Your task to perform on an android device: Search for "jbl charge 4" on newegg.com, select the first entry, add it to the cart, then select checkout. Image 0: 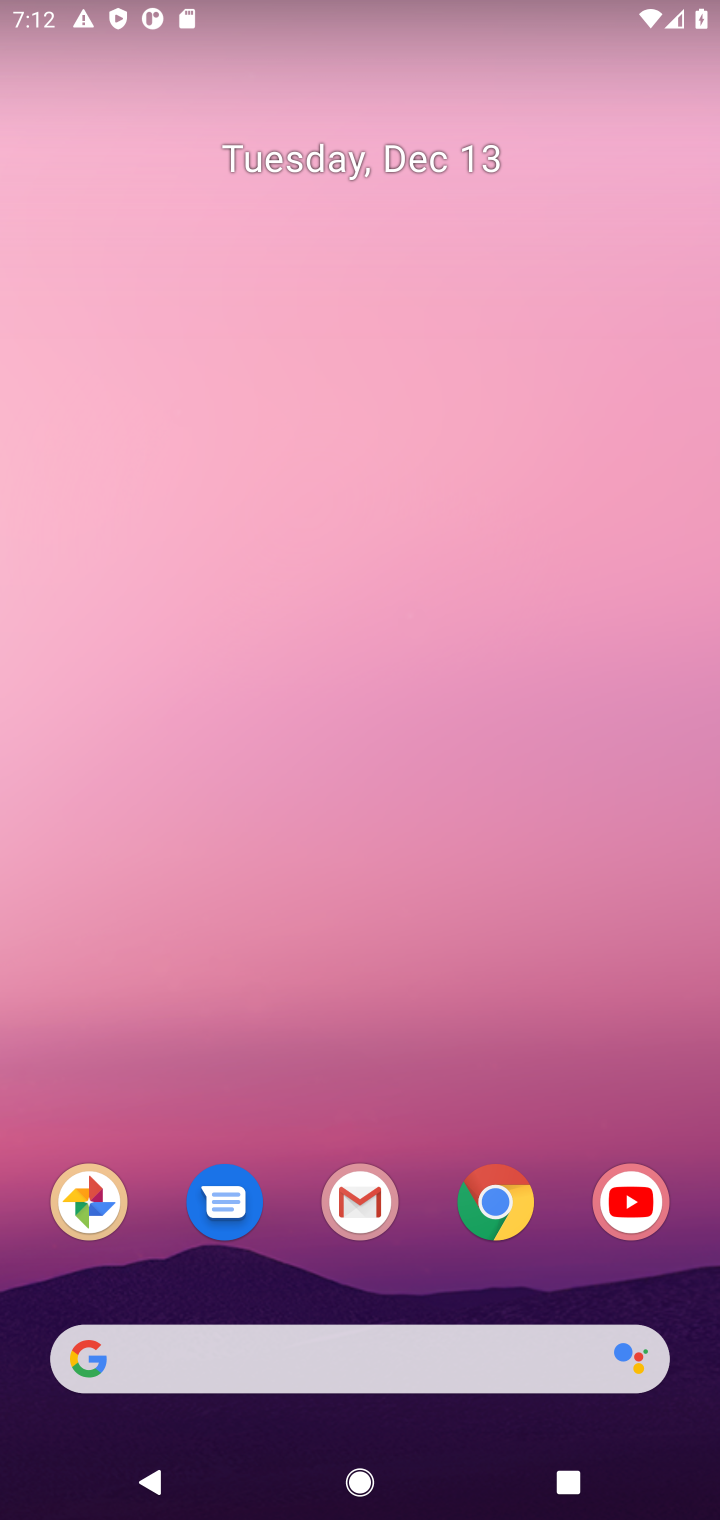
Step 0: click (499, 1213)
Your task to perform on an android device: Search for "jbl charge 4" on newegg.com, select the first entry, add it to the cart, then select checkout. Image 1: 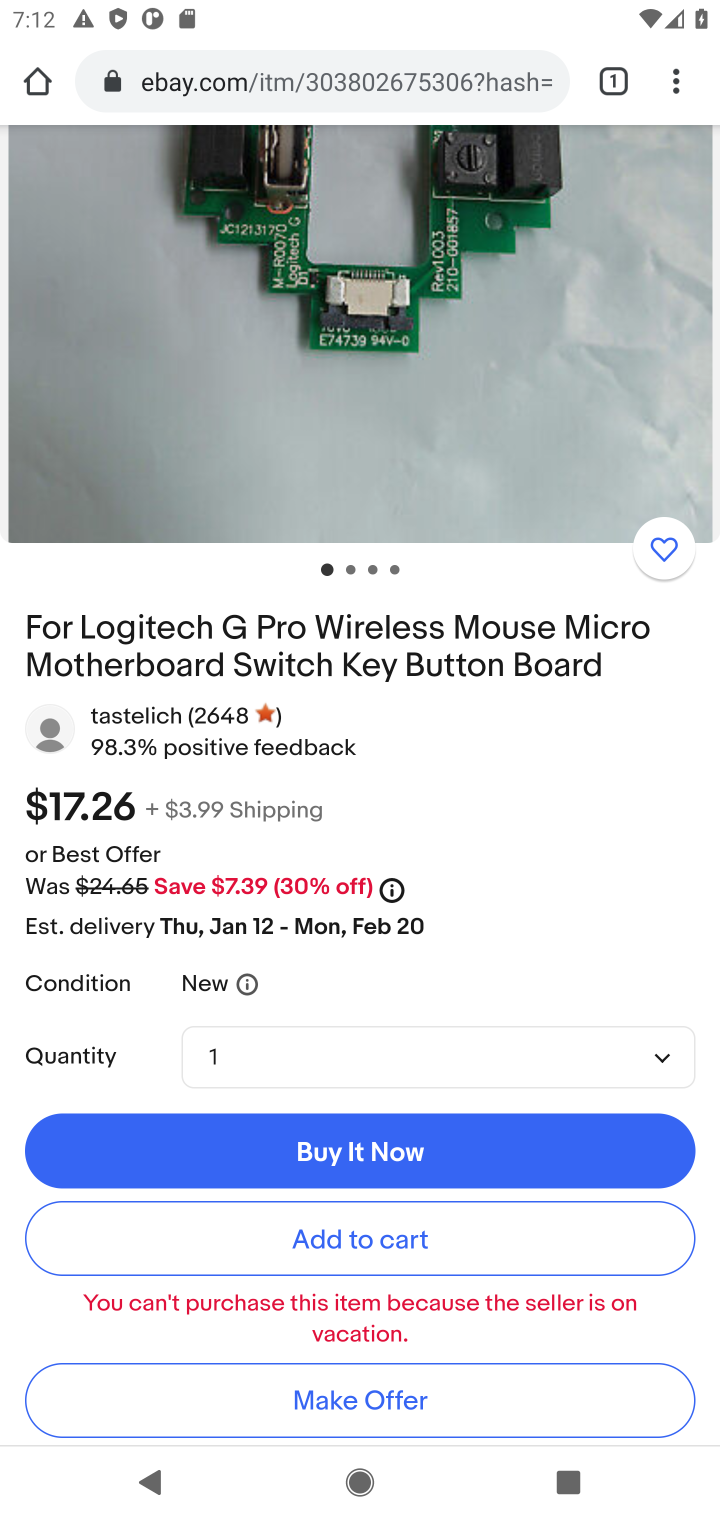
Step 1: click (237, 92)
Your task to perform on an android device: Search for "jbl charge 4" on newegg.com, select the first entry, add it to the cart, then select checkout. Image 2: 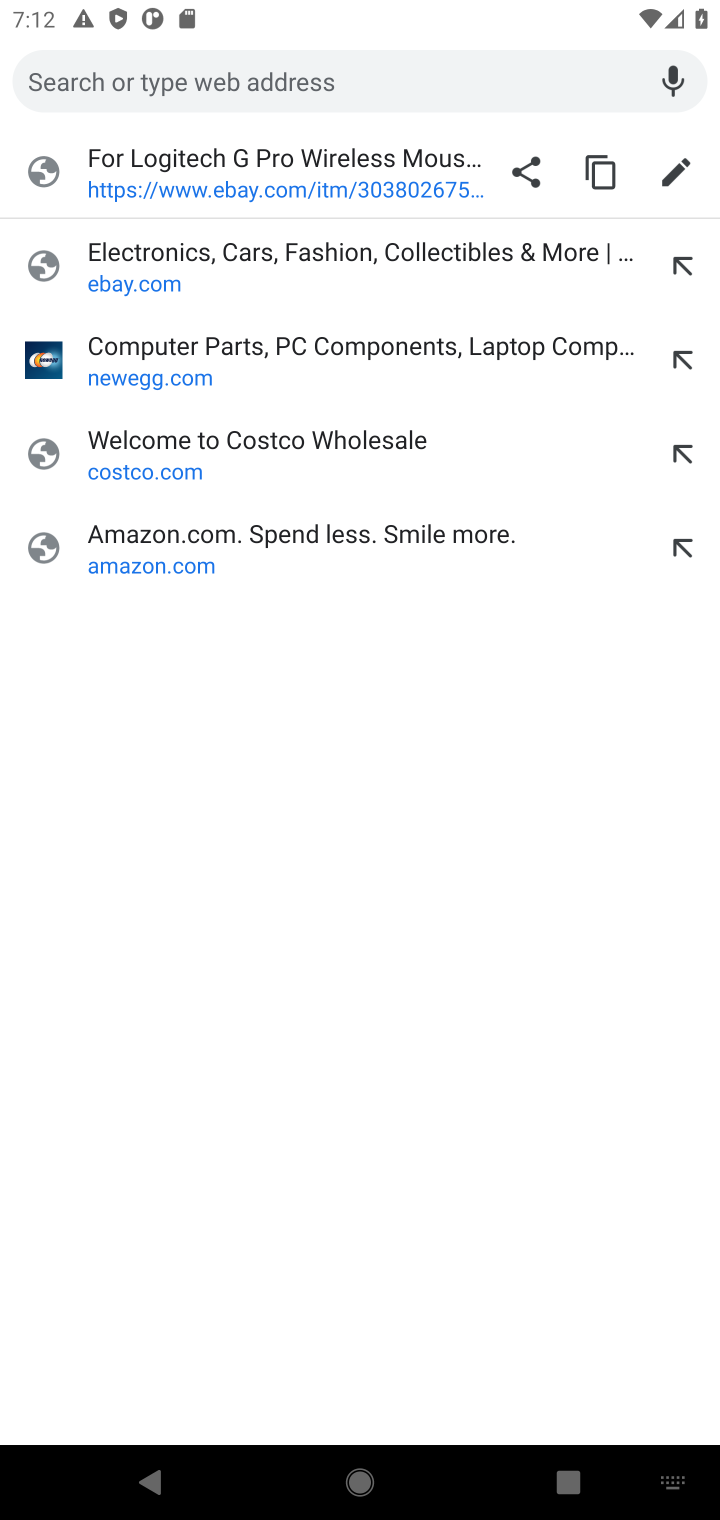
Step 2: click (119, 379)
Your task to perform on an android device: Search for "jbl charge 4" on newegg.com, select the first entry, add it to the cart, then select checkout. Image 3: 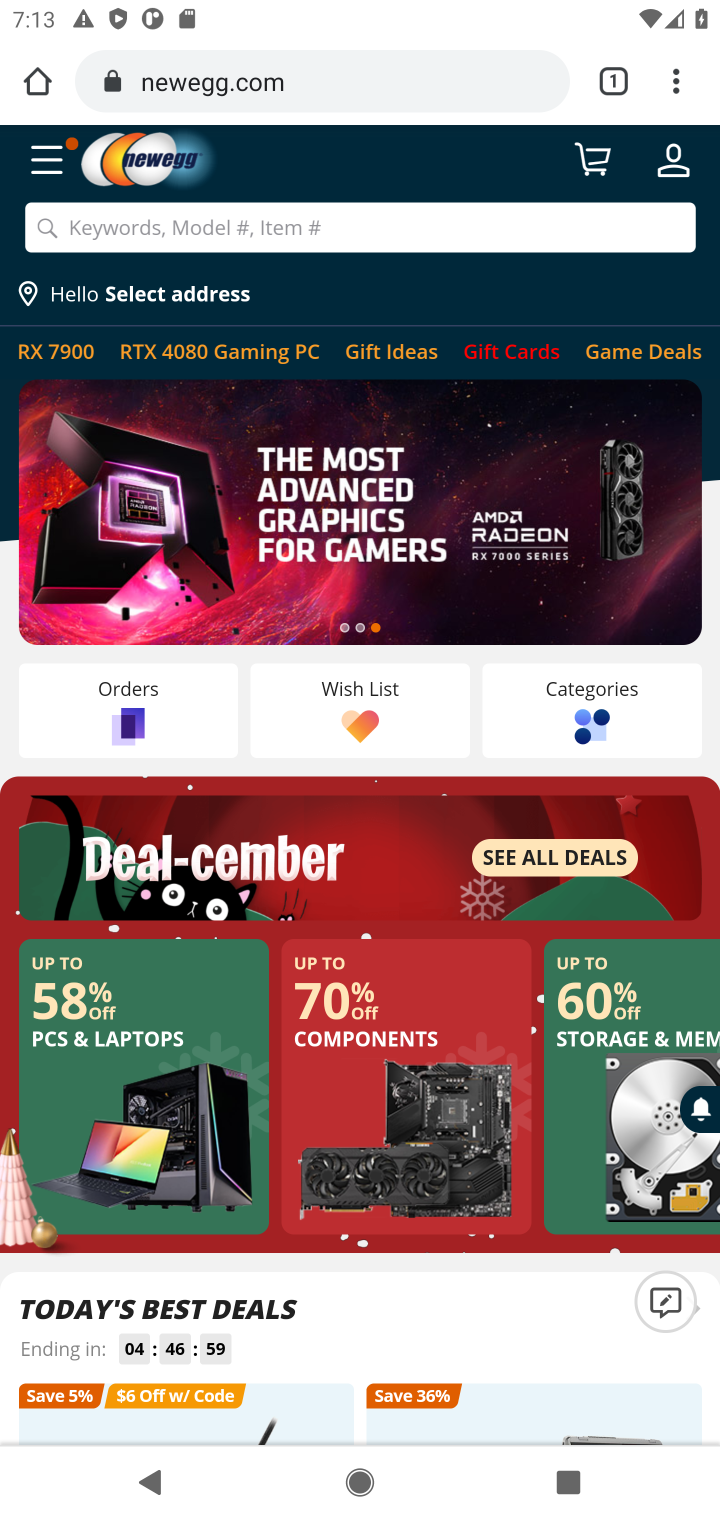
Step 3: click (183, 234)
Your task to perform on an android device: Search for "jbl charge 4" on newegg.com, select the first entry, add it to the cart, then select checkout. Image 4: 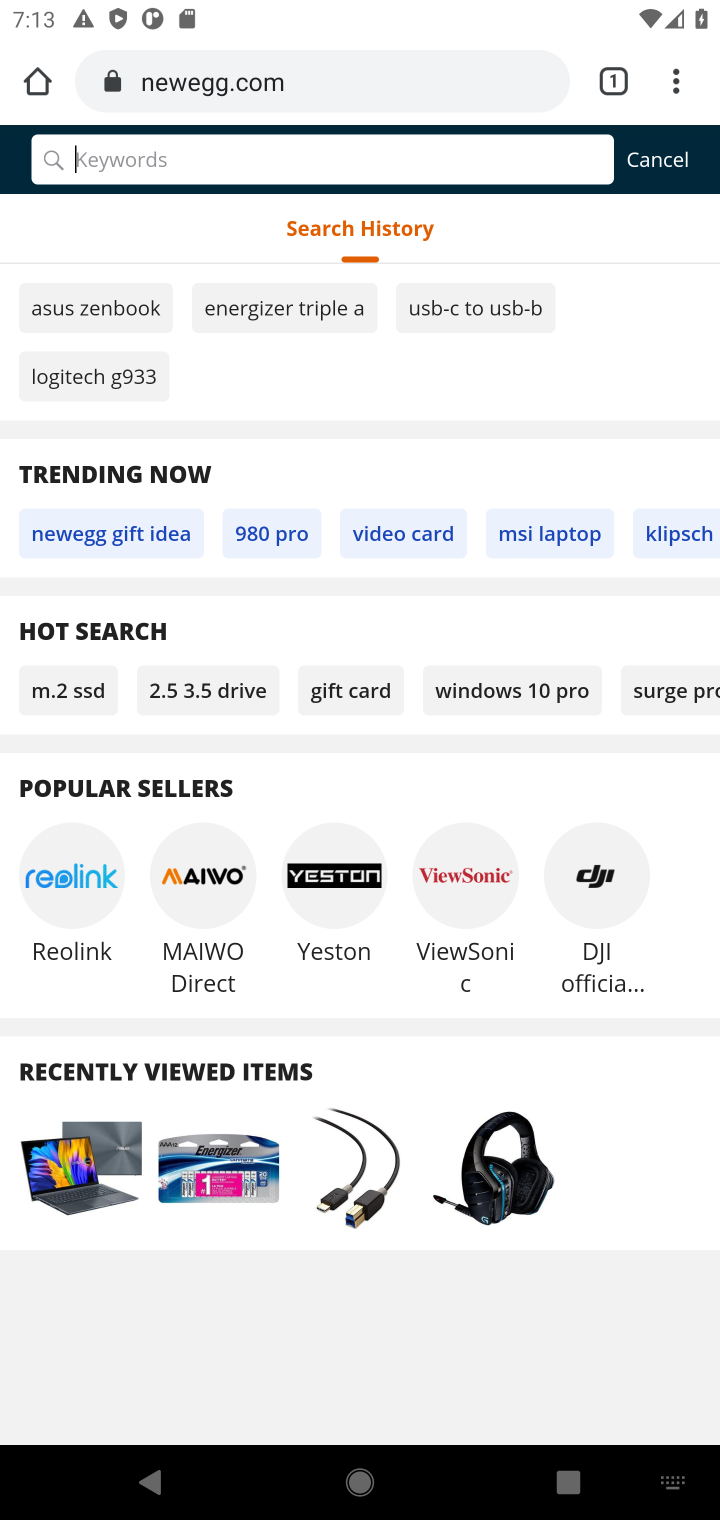
Step 4: click (183, 234)
Your task to perform on an android device: Search for "jbl charge 4" on newegg.com, select the first entry, add it to the cart, then select checkout. Image 5: 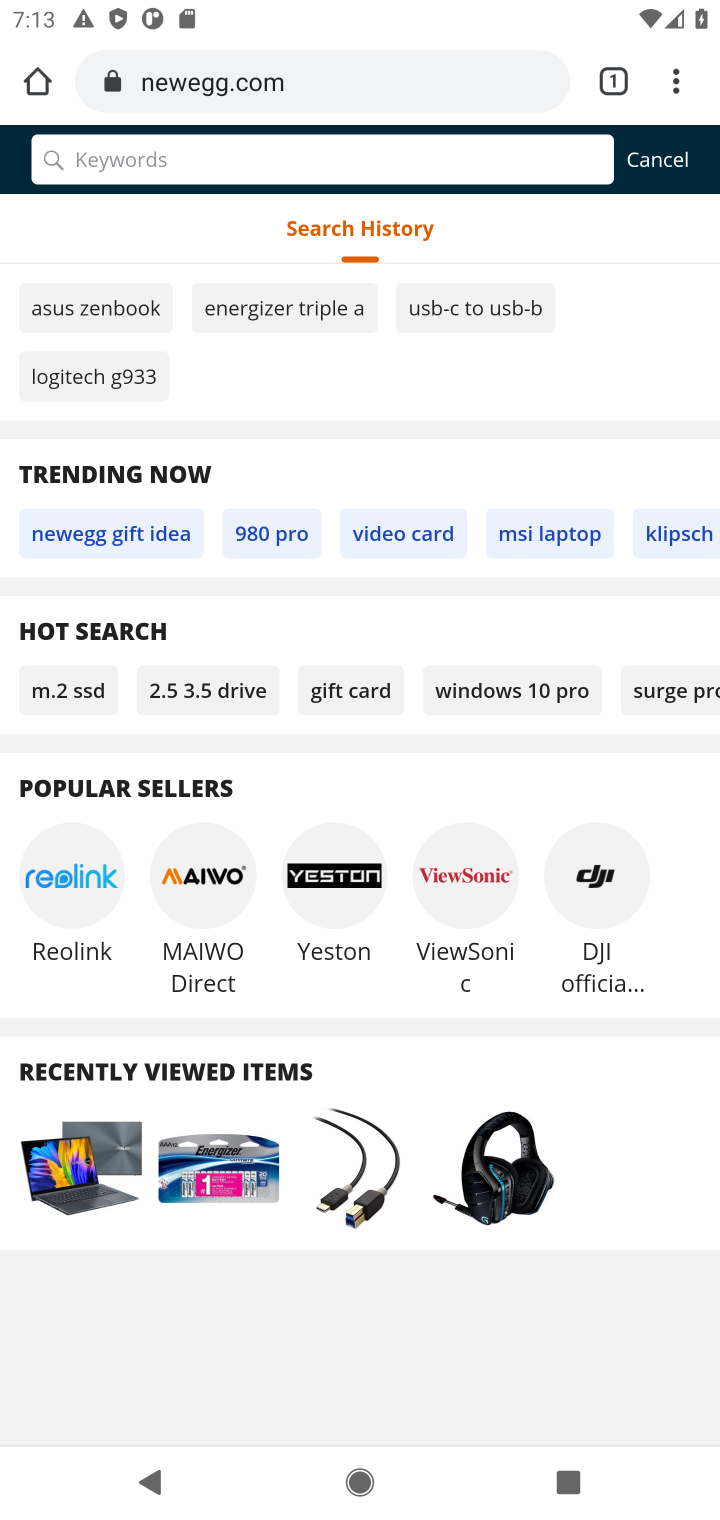
Step 5: click (131, 151)
Your task to perform on an android device: Search for "jbl charge 4" on newegg.com, select the first entry, add it to the cart, then select checkout. Image 6: 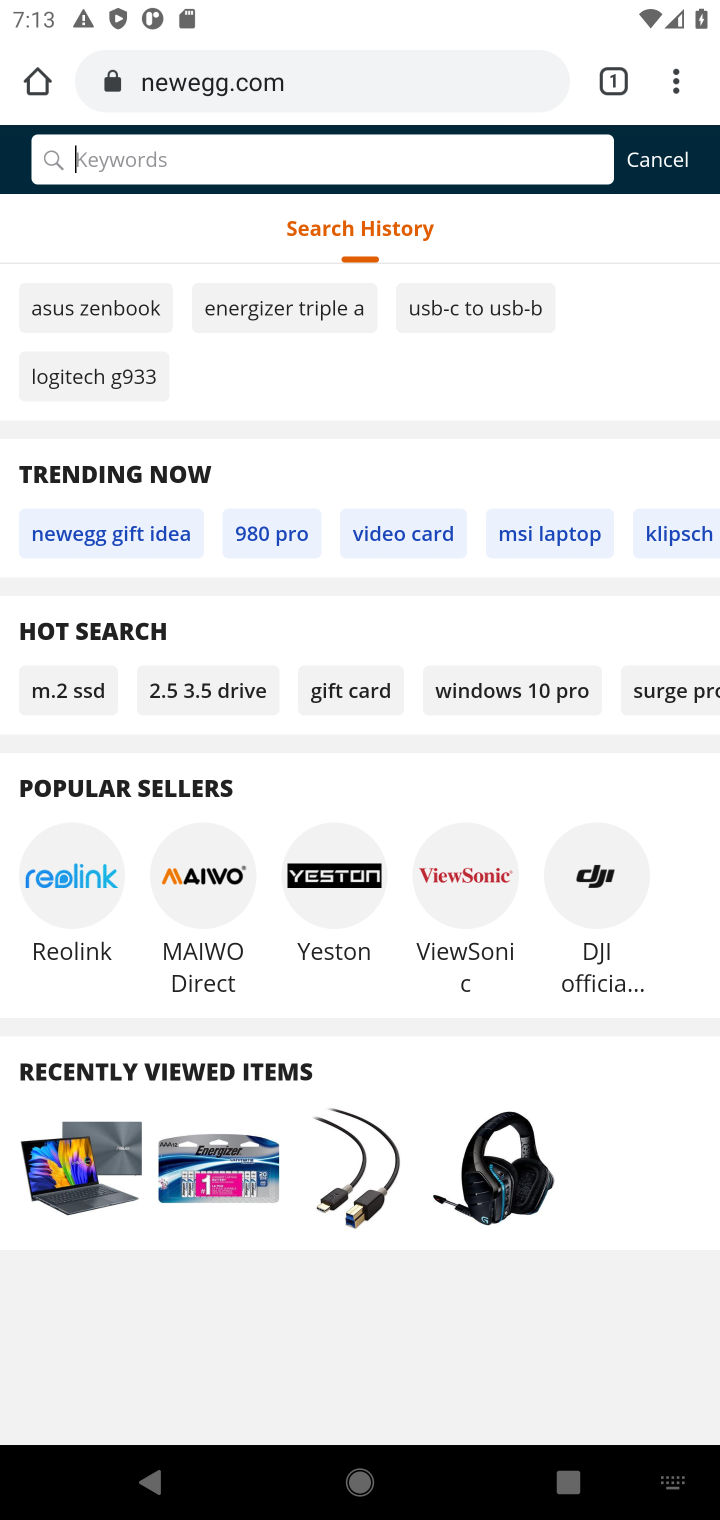
Step 6: type "jbl charge 4"
Your task to perform on an android device: Search for "jbl charge 4" on newegg.com, select the first entry, add it to the cart, then select checkout. Image 7: 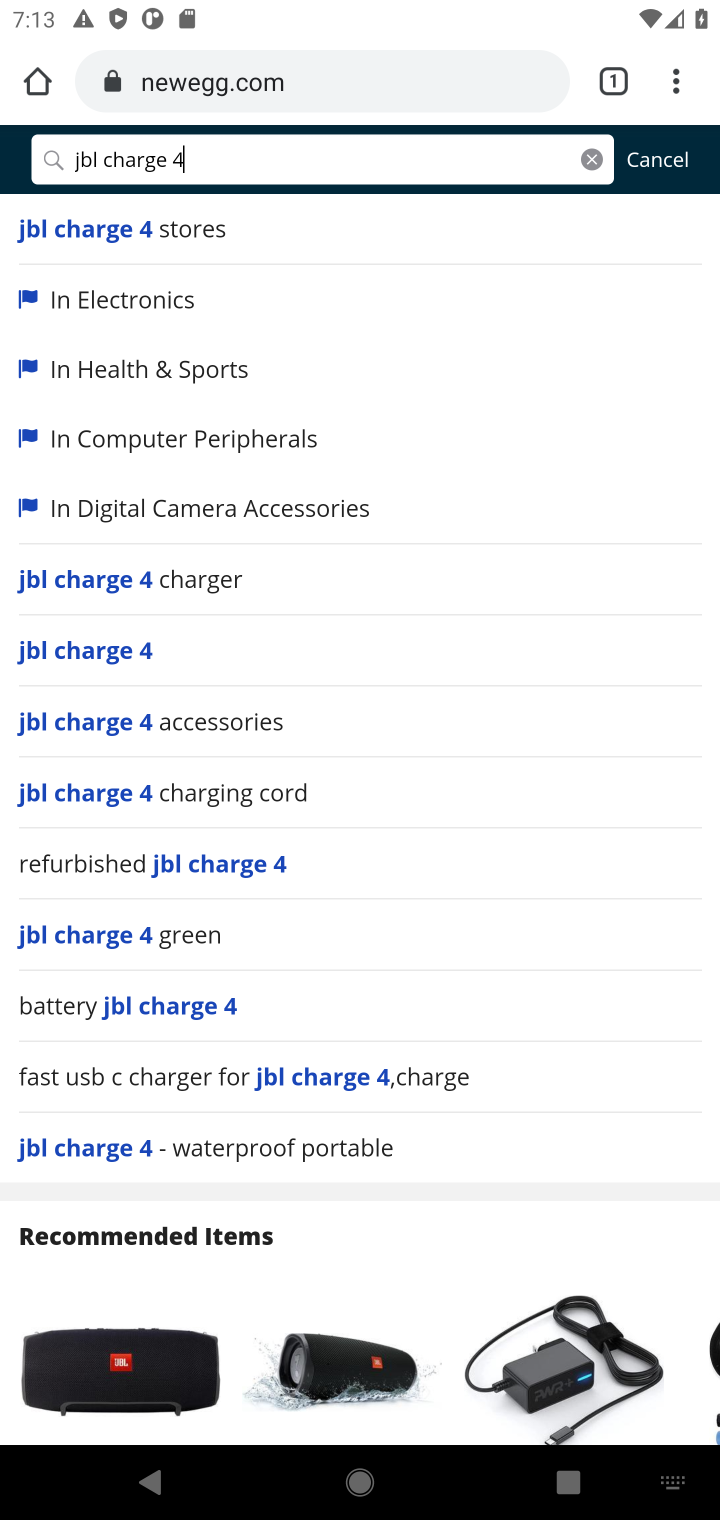
Step 7: click (100, 650)
Your task to perform on an android device: Search for "jbl charge 4" on newegg.com, select the first entry, add it to the cart, then select checkout. Image 8: 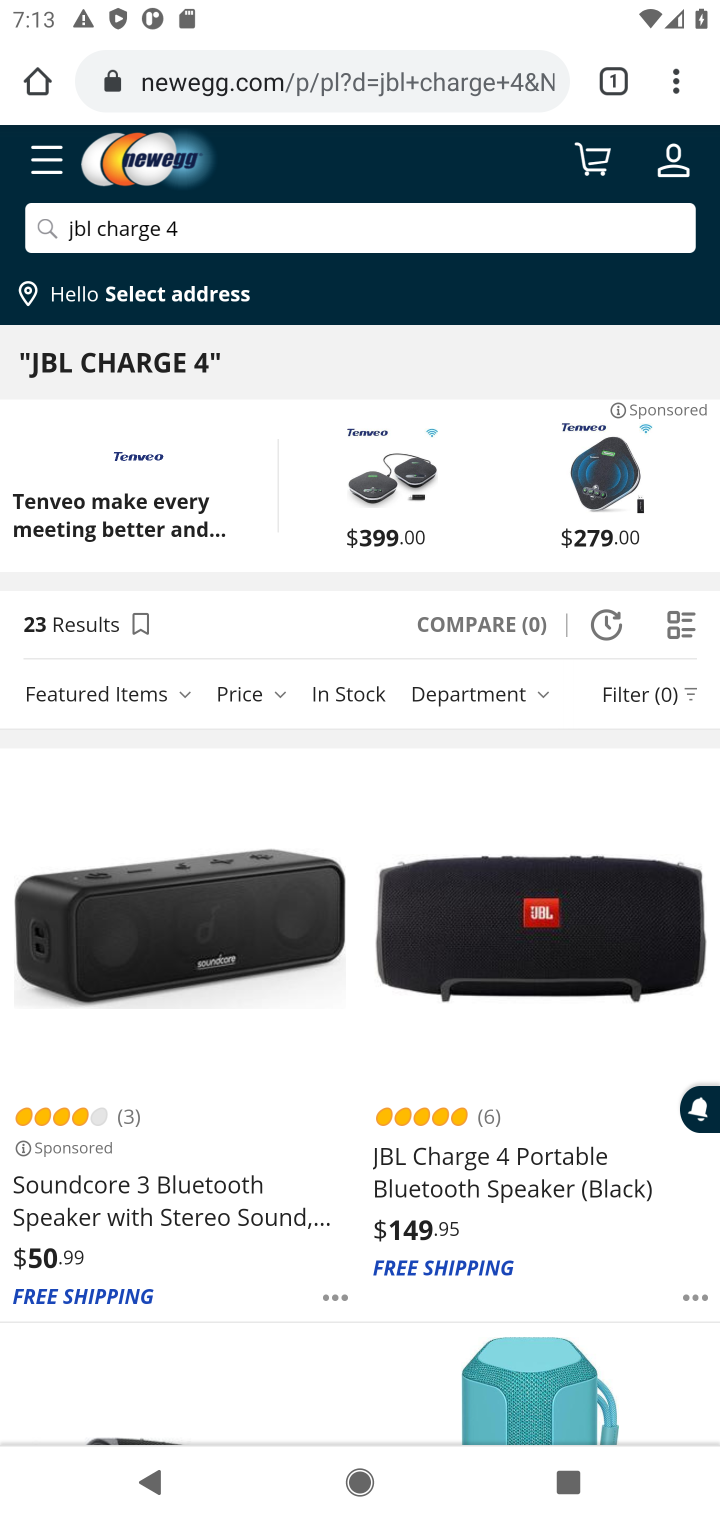
Step 8: drag from (177, 1067) to (196, 808)
Your task to perform on an android device: Search for "jbl charge 4" on newegg.com, select the first entry, add it to the cart, then select checkout. Image 9: 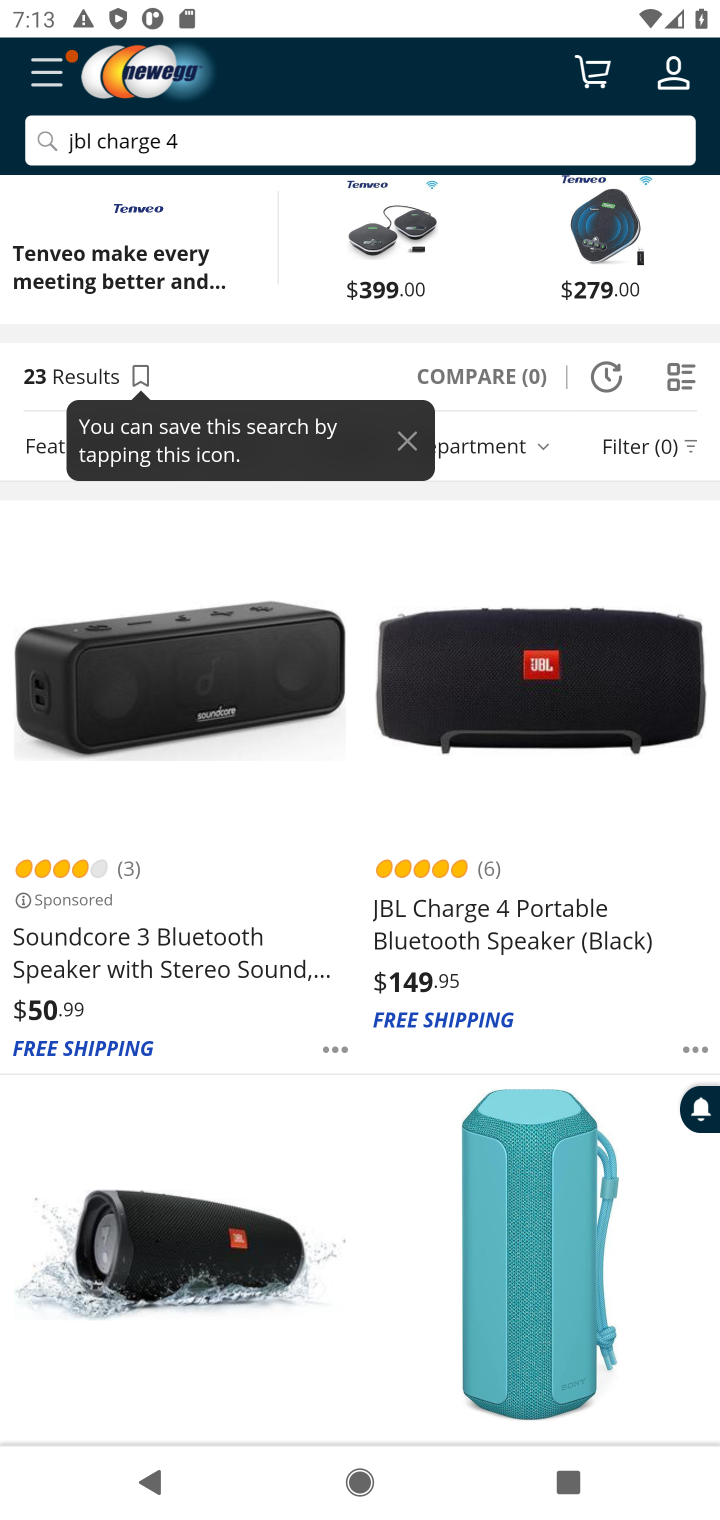
Step 9: click (155, 970)
Your task to perform on an android device: Search for "jbl charge 4" on newegg.com, select the first entry, add it to the cart, then select checkout. Image 10: 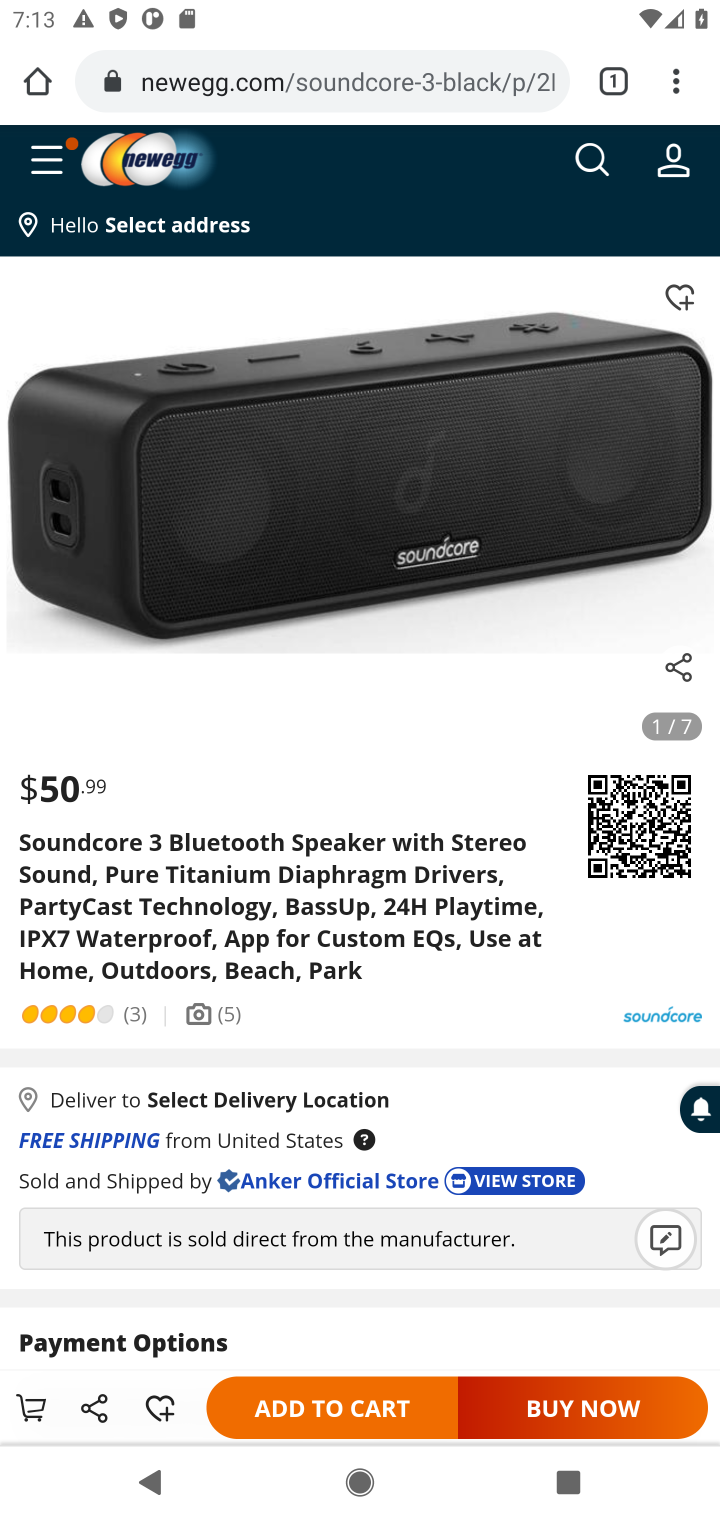
Step 10: task complete